Your task to perform on an android device: Open the calendar app, open the side menu, and click the "Day" option Image 0: 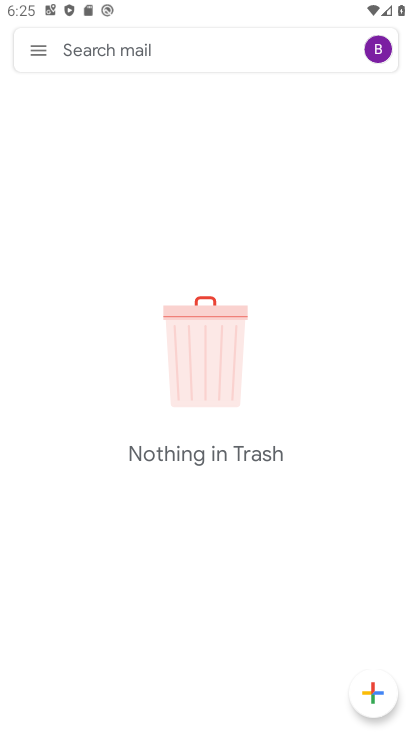
Step 0: press home button
Your task to perform on an android device: Open the calendar app, open the side menu, and click the "Day" option Image 1: 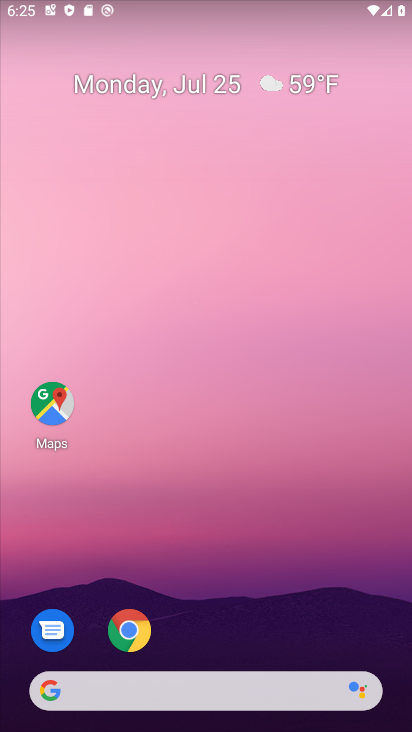
Step 1: drag from (205, 593) to (239, 207)
Your task to perform on an android device: Open the calendar app, open the side menu, and click the "Day" option Image 2: 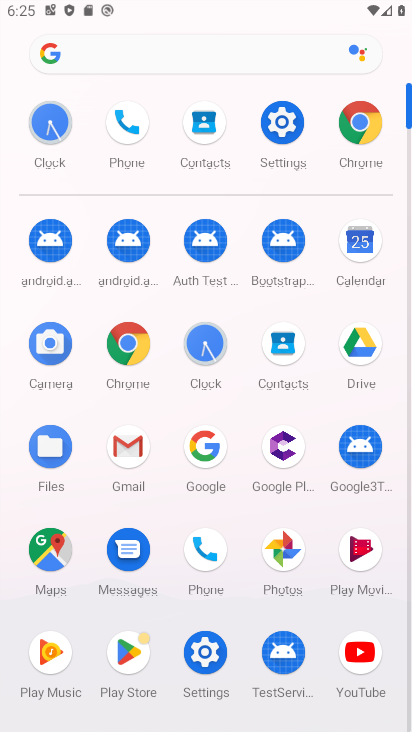
Step 2: click (362, 261)
Your task to perform on an android device: Open the calendar app, open the side menu, and click the "Day" option Image 3: 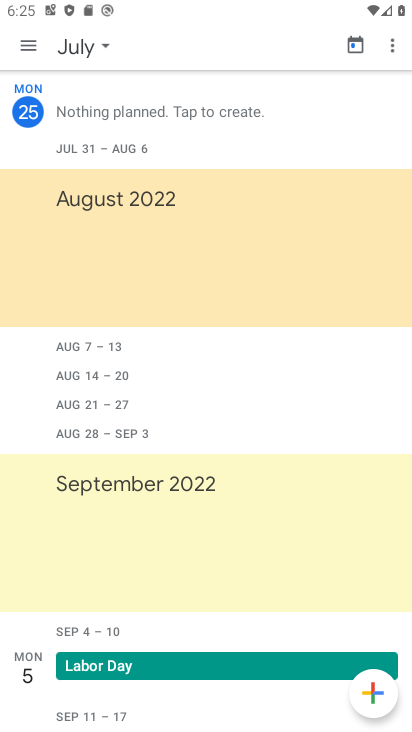
Step 3: click (25, 40)
Your task to perform on an android device: Open the calendar app, open the side menu, and click the "Day" option Image 4: 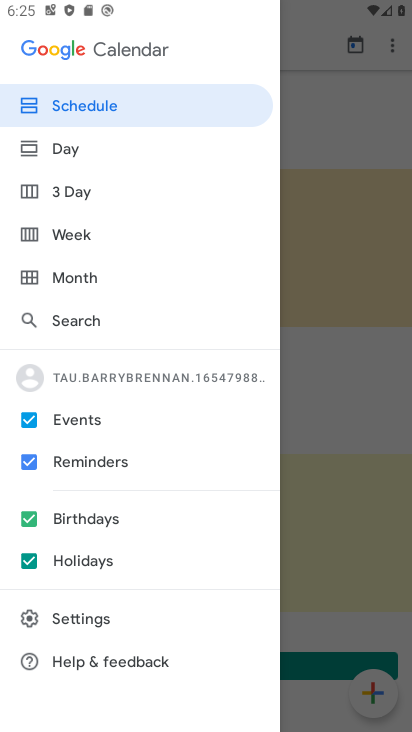
Step 4: click (106, 160)
Your task to perform on an android device: Open the calendar app, open the side menu, and click the "Day" option Image 5: 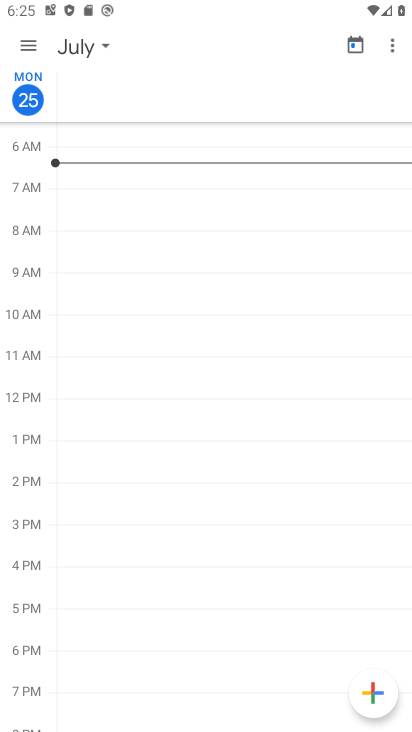
Step 5: task complete